Your task to perform on an android device: turn off javascript in the chrome app Image 0: 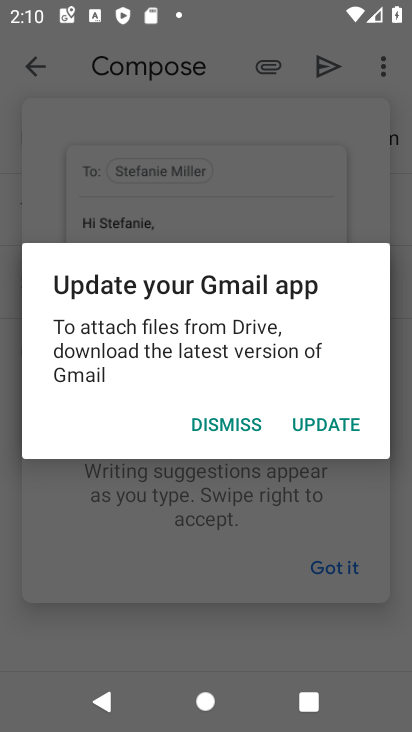
Step 0: press home button
Your task to perform on an android device: turn off javascript in the chrome app Image 1: 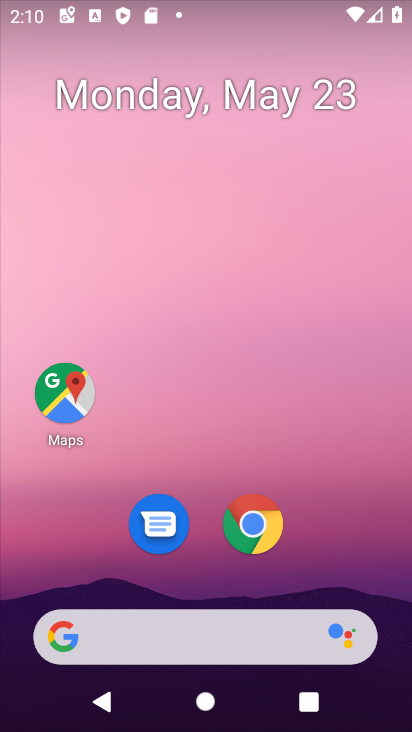
Step 1: click (259, 527)
Your task to perform on an android device: turn off javascript in the chrome app Image 2: 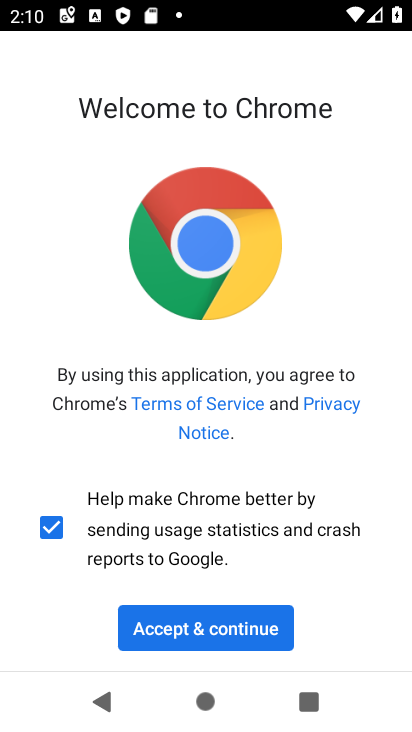
Step 2: click (242, 628)
Your task to perform on an android device: turn off javascript in the chrome app Image 3: 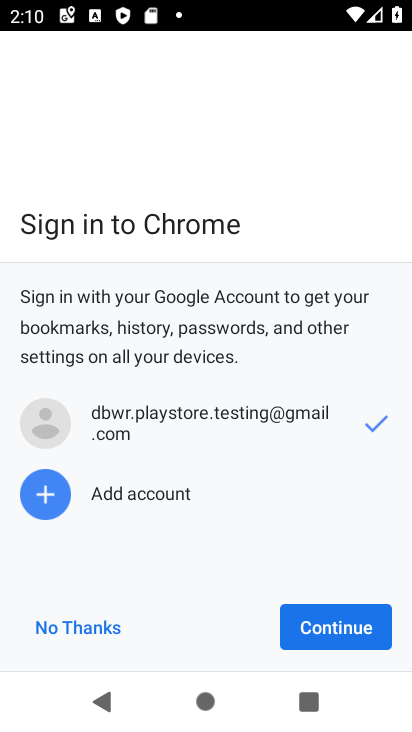
Step 3: click (322, 626)
Your task to perform on an android device: turn off javascript in the chrome app Image 4: 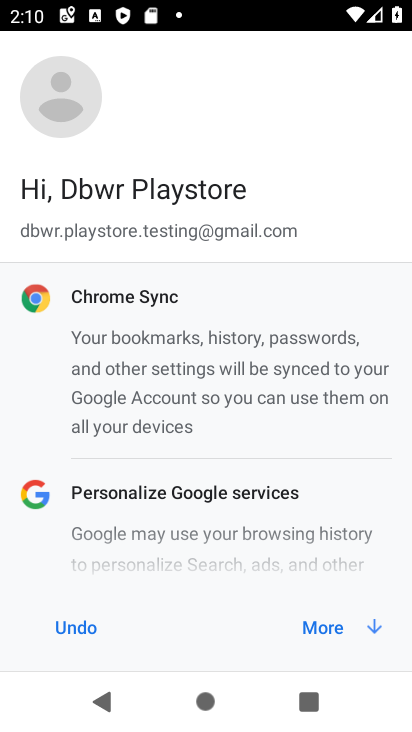
Step 4: click (322, 627)
Your task to perform on an android device: turn off javascript in the chrome app Image 5: 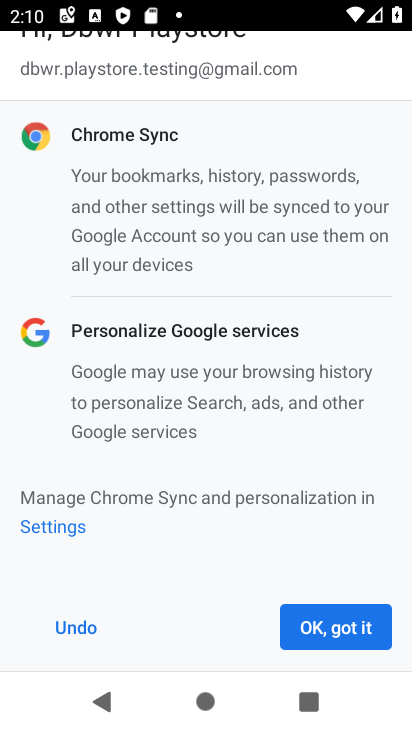
Step 5: click (322, 627)
Your task to perform on an android device: turn off javascript in the chrome app Image 6: 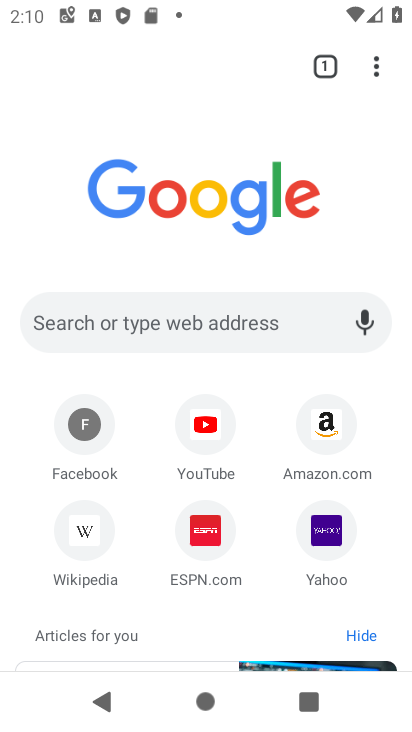
Step 6: click (379, 74)
Your task to perform on an android device: turn off javascript in the chrome app Image 7: 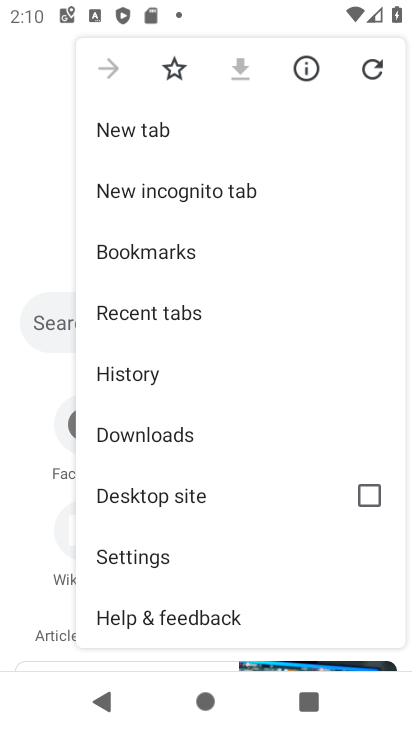
Step 7: click (167, 559)
Your task to perform on an android device: turn off javascript in the chrome app Image 8: 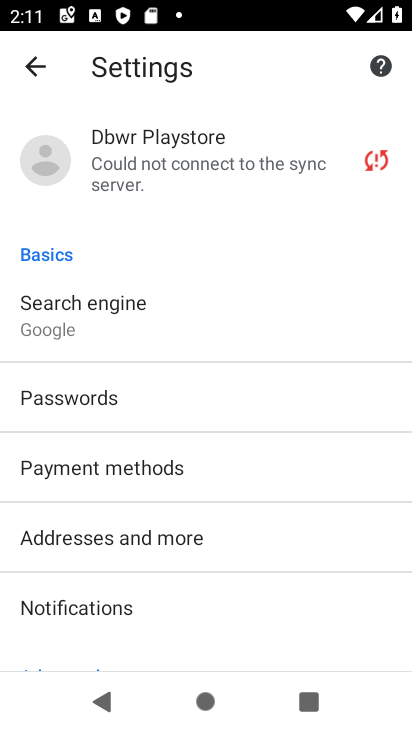
Step 8: drag from (210, 462) to (226, 161)
Your task to perform on an android device: turn off javascript in the chrome app Image 9: 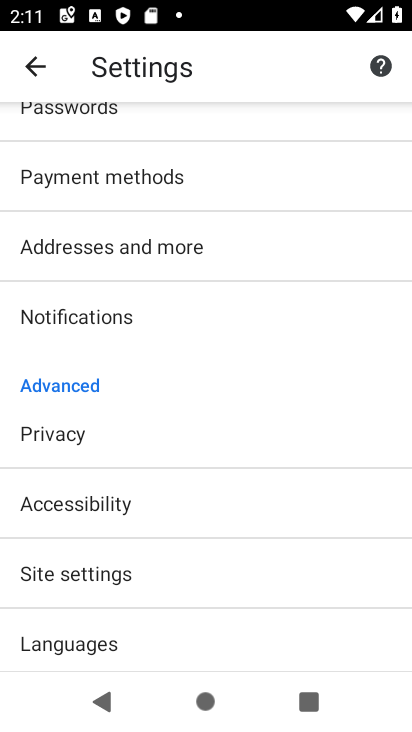
Step 9: click (188, 576)
Your task to perform on an android device: turn off javascript in the chrome app Image 10: 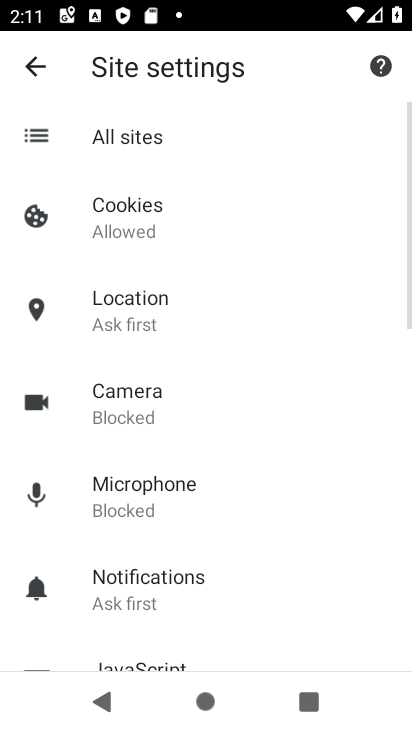
Step 10: drag from (240, 518) to (247, 196)
Your task to perform on an android device: turn off javascript in the chrome app Image 11: 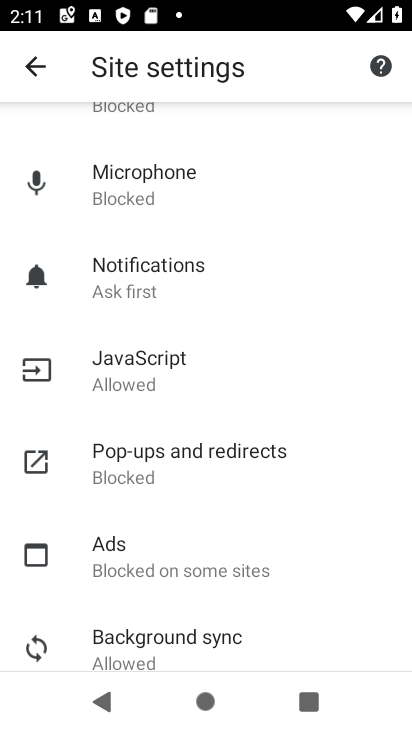
Step 11: click (196, 371)
Your task to perform on an android device: turn off javascript in the chrome app Image 12: 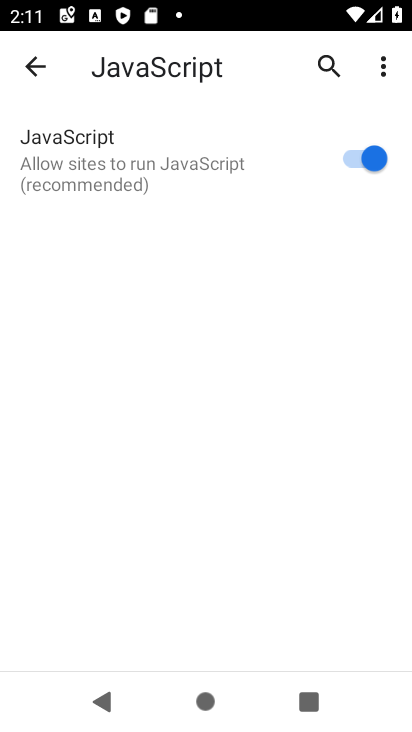
Step 12: click (364, 146)
Your task to perform on an android device: turn off javascript in the chrome app Image 13: 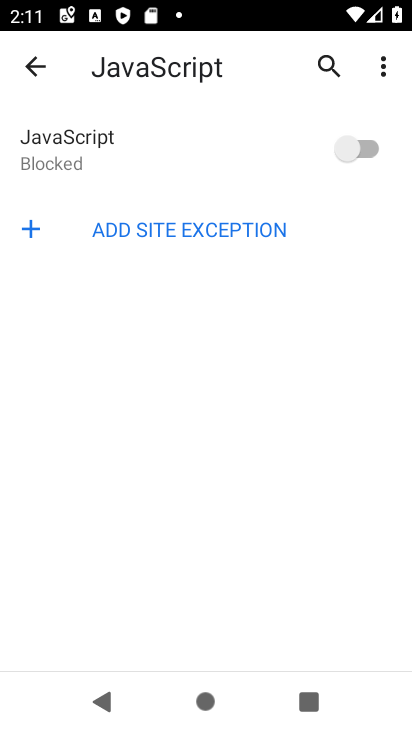
Step 13: task complete